Your task to perform on an android device: find photos in the google photos app Image 0: 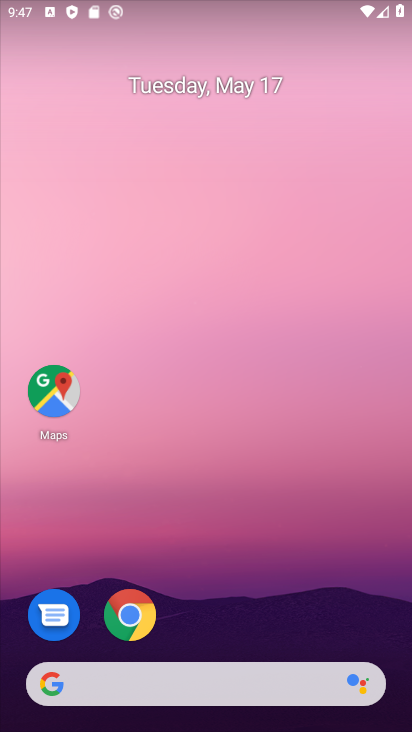
Step 0: drag from (342, 611) to (286, 84)
Your task to perform on an android device: find photos in the google photos app Image 1: 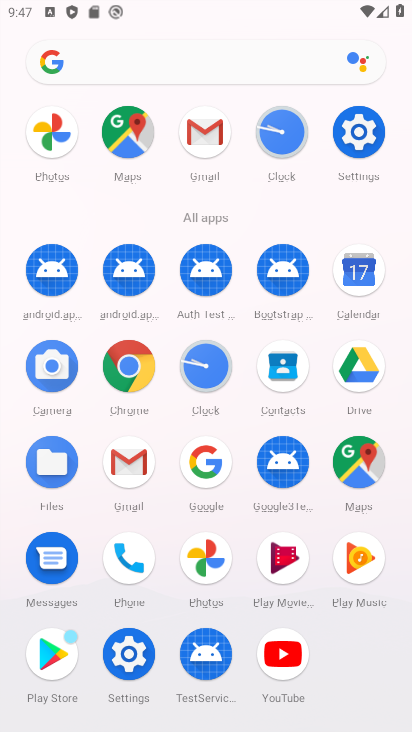
Step 1: click (205, 556)
Your task to perform on an android device: find photos in the google photos app Image 2: 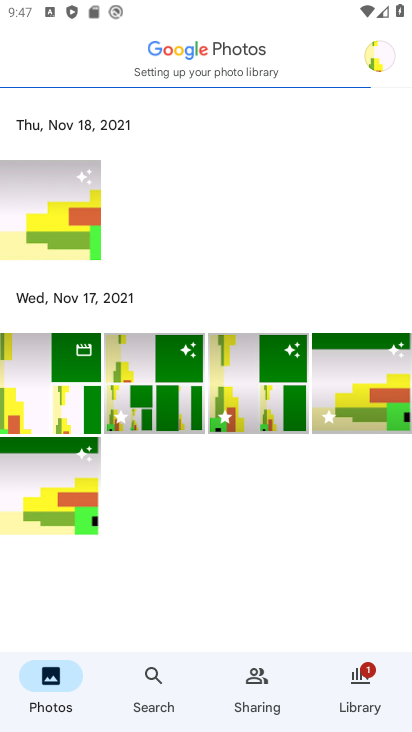
Step 2: task complete